Your task to perform on an android device: delete the emails in spam in the gmail app Image 0: 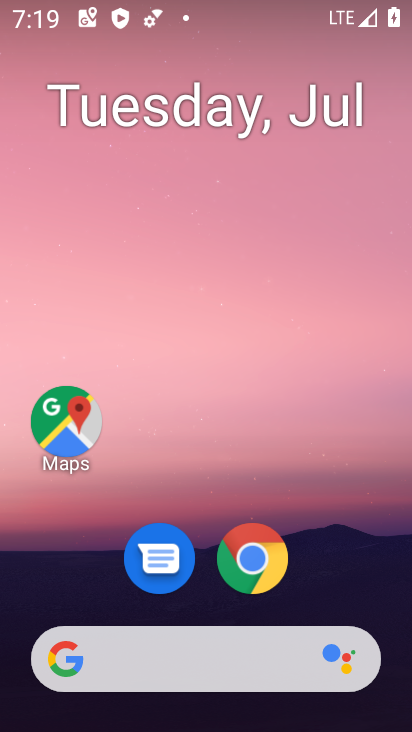
Step 0: drag from (129, 328) to (178, 17)
Your task to perform on an android device: delete the emails in spam in the gmail app Image 1: 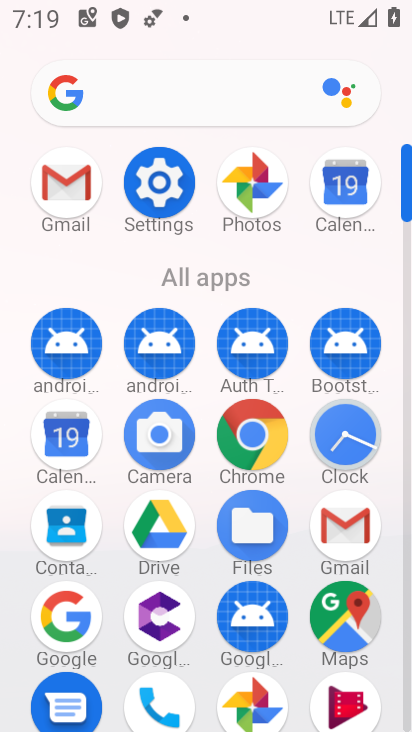
Step 1: click (76, 183)
Your task to perform on an android device: delete the emails in spam in the gmail app Image 2: 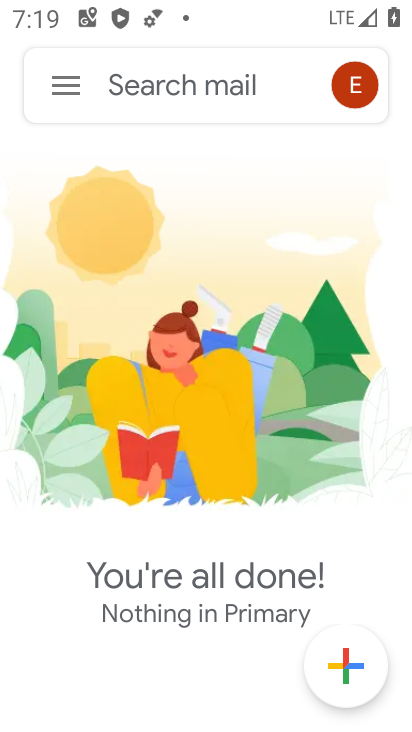
Step 2: click (63, 82)
Your task to perform on an android device: delete the emails in spam in the gmail app Image 3: 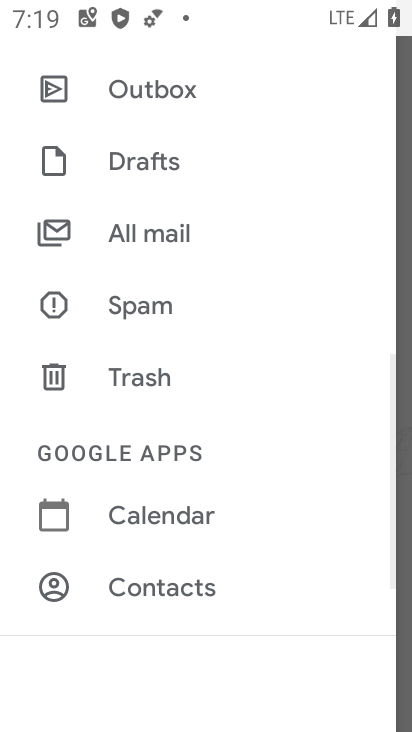
Step 3: click (160, 309)
Your task to perform on an android device: delete the emails in spam in the gmail app Image 4: 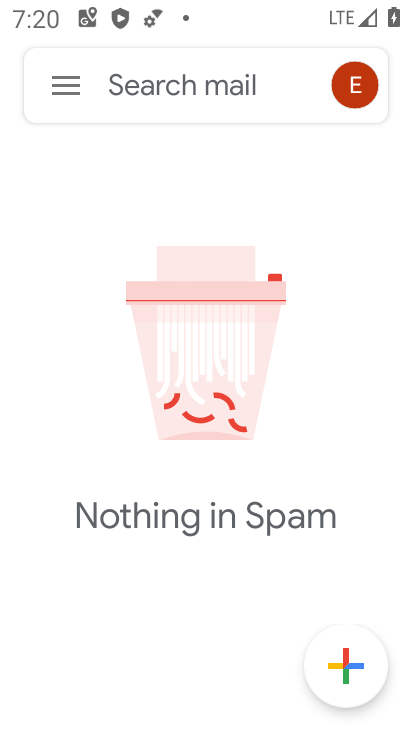
Step 4: task complete